Your task to perform on an android device: Is it going to rain this weekend? Image 0: 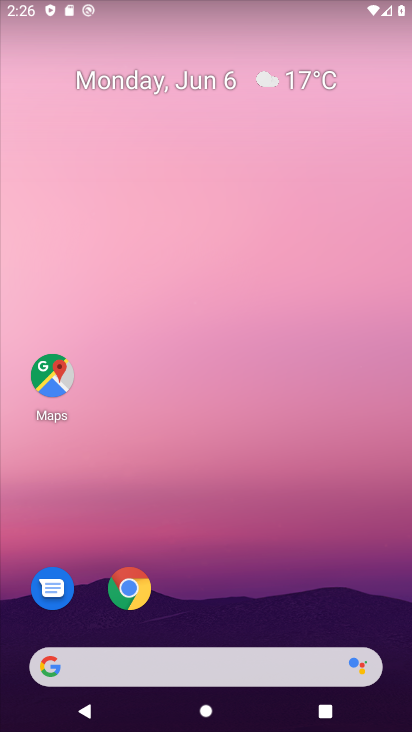
Step 0: click (275, 85)
Your task to perform on an android device: Is it going to rain this weekend? Image 1: 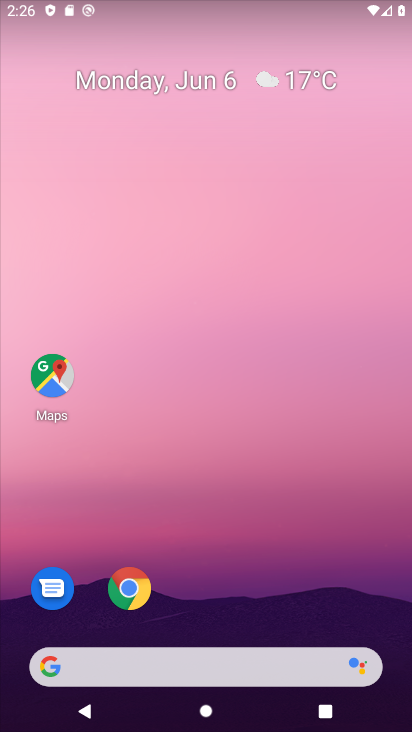
Step 1: click (315, 84)
Your task to perform on an android device: Is it going to rain this weekend? Image 2: 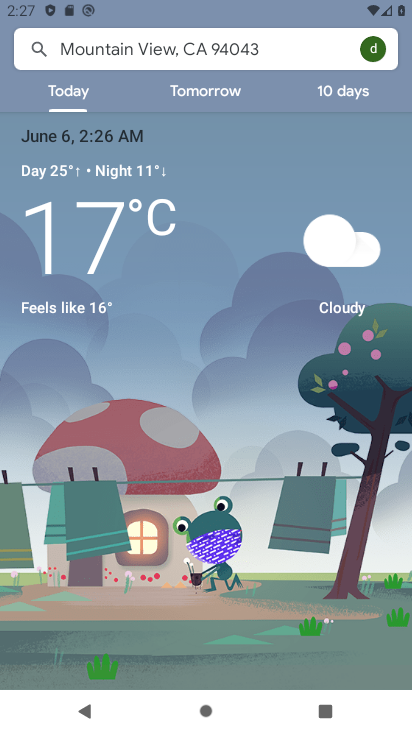
Step 2: click (346, 85)
Your task to perform on an android device: Is it going to rain this weekend? Image 3: 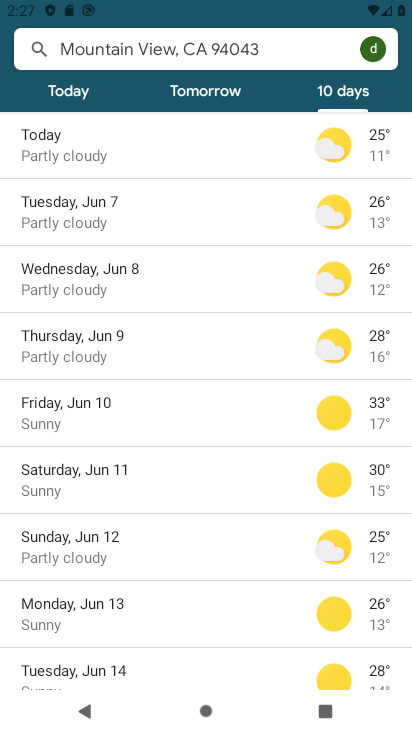
Step 3: task complete